Your task to perform on an android device: refresh tabs in the chrome app Image 0: 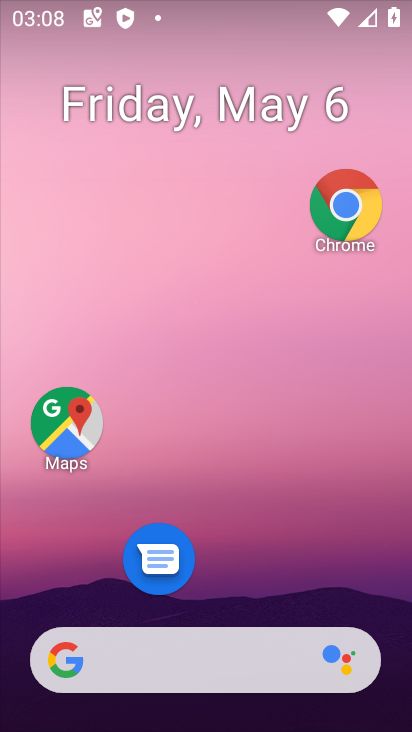
Step 0: drag from (170, 630) to (284, 153)
Your task to perform on an android device: refresh tabs in the chrome app Image 1: 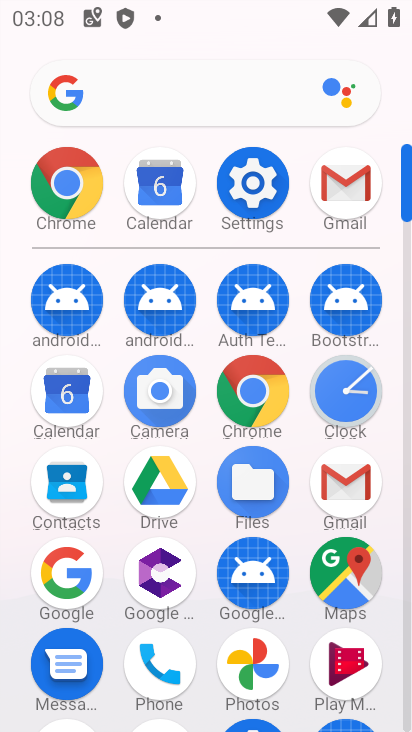
Step 1: click (82, 189)
Your task to perform on an android device: refresh tabs in the chrome app Image 2: 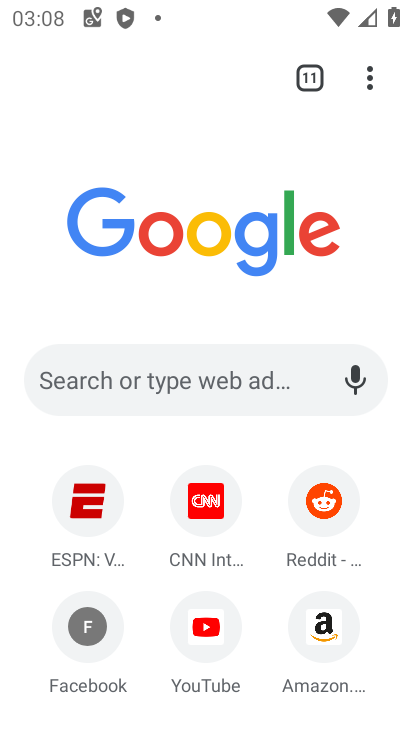
Step 2: click (367, 86)
Your task to perform on an android device: refresh tabs in the chrome app Image 3: 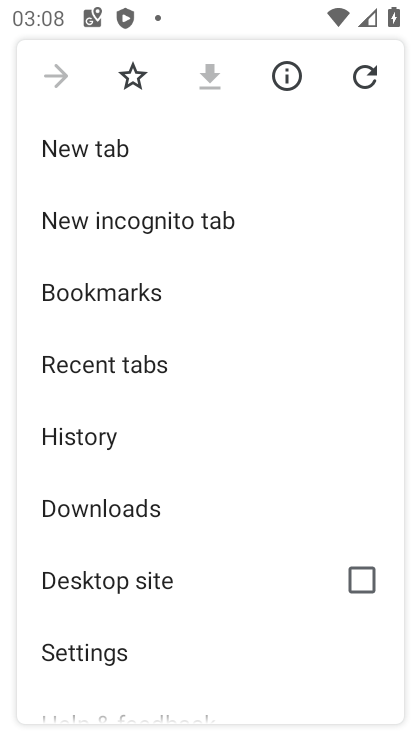
Step 3: click (354, 80)
Your task to perform on an android device: refresh tabs in the chrome app Image 4: 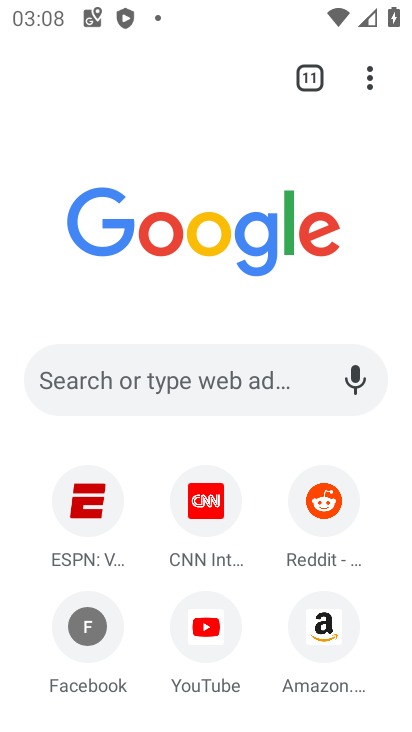
Step 4: task complete